Your task to perform on an android device: How big is a blue whale? Image 0: 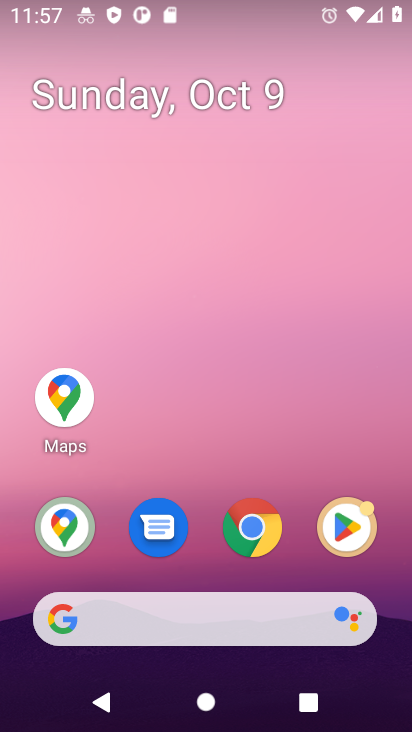
Step 0: click (251, 517)
Your task to perform on an android device: How big is a blue whale? Image 1: 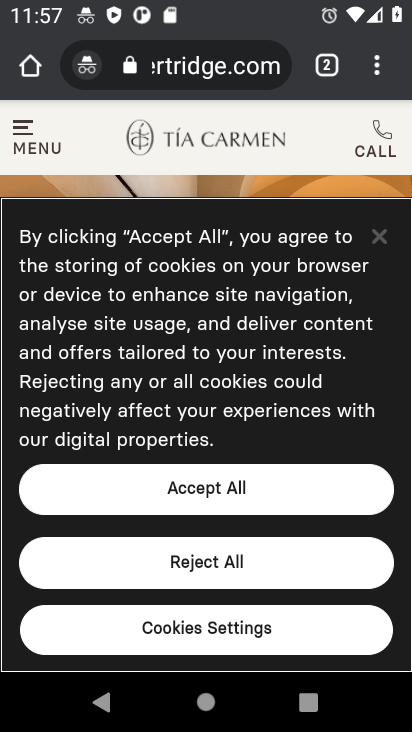
Step 1: click (220, 73)
Your task to perform on an android device: How big is a blue whale? Image 2: 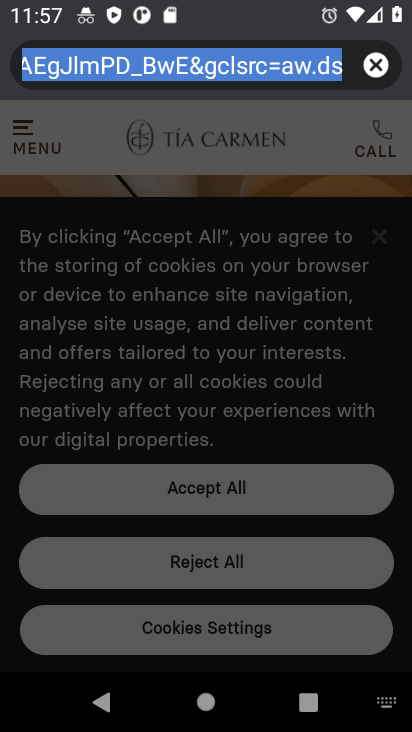
Step 2: type "How big is a blue whale?"
Your task to perform on an android device: How big is a blue whale? Image 3: 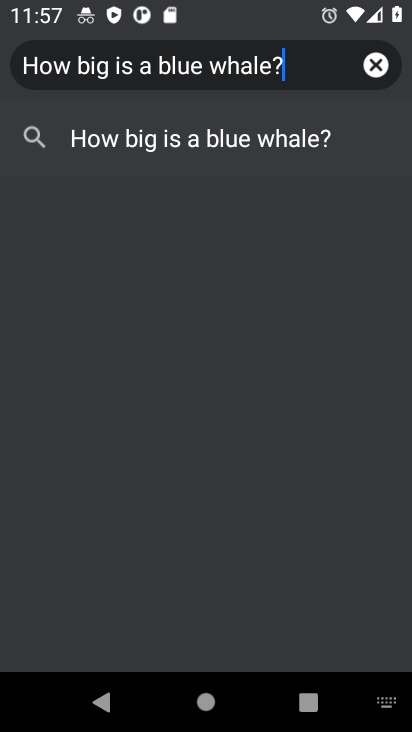
Step 3: click (132, 157)
Your task to perform on an android device: How big is a blue whale? Image 4: 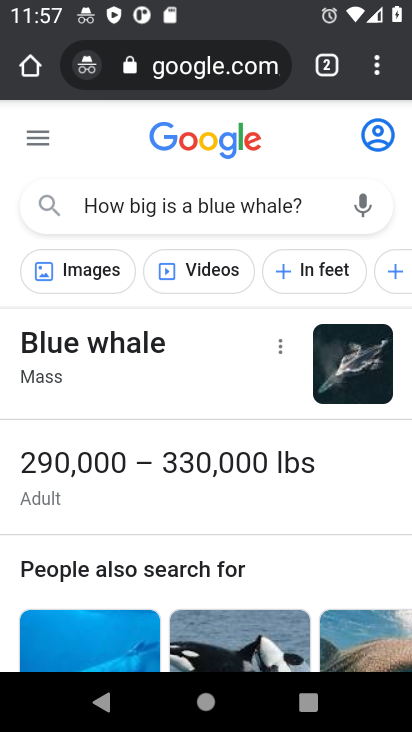
Step 4: task complete